Your task to perform on an android device: add a contact Image 0: 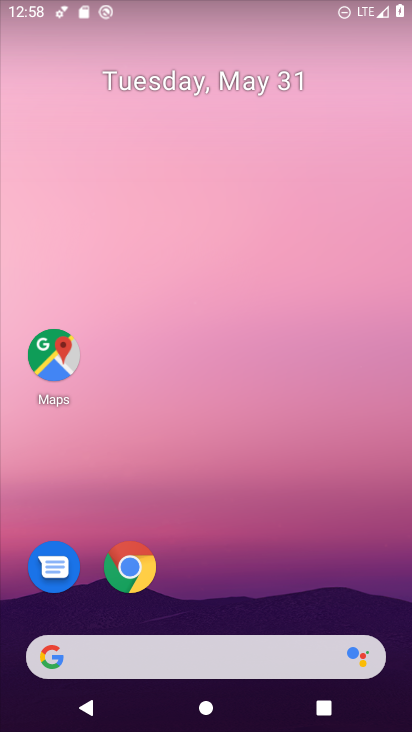
Step 0: drag from (225, 595) to (212, 152)
Your task to perform on an android device: add a contact Image 1: 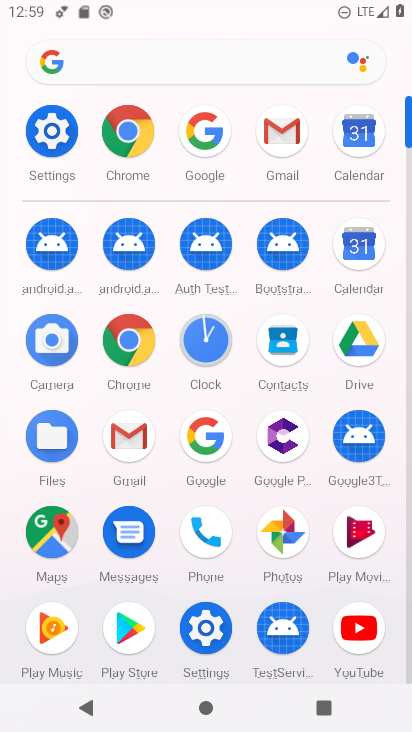
Step 1: click (262, 358)
Your task to perform on an android device: add a contact Image 2: 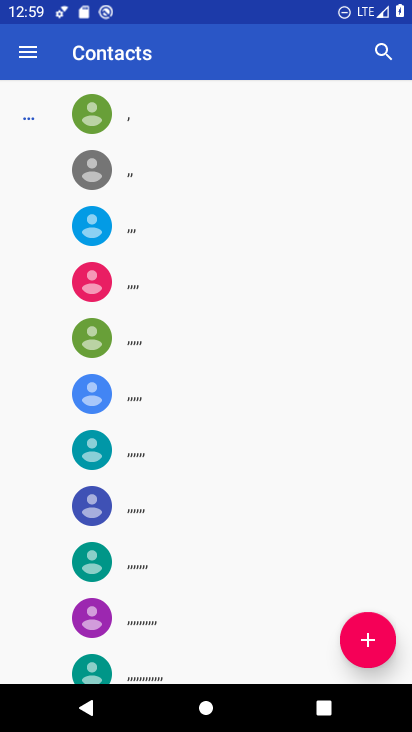
Step 2: click (362, 637)
Your task to perform on an android device: add a contact Image 3: 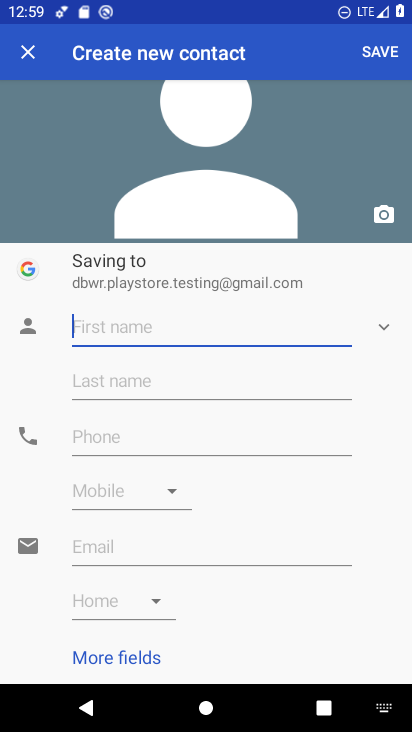
Step 3: type "hfghf"
Your task to perform on an android device: add a contact Image 4: 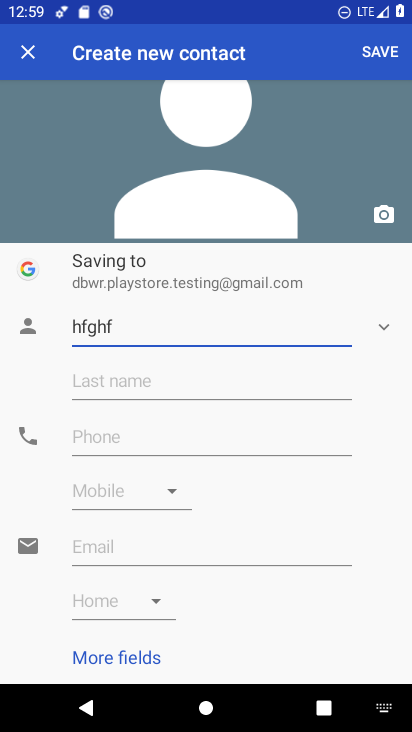
Step 4: click (144, 430)
Your task to perform on an android device: add a contact Image 5: 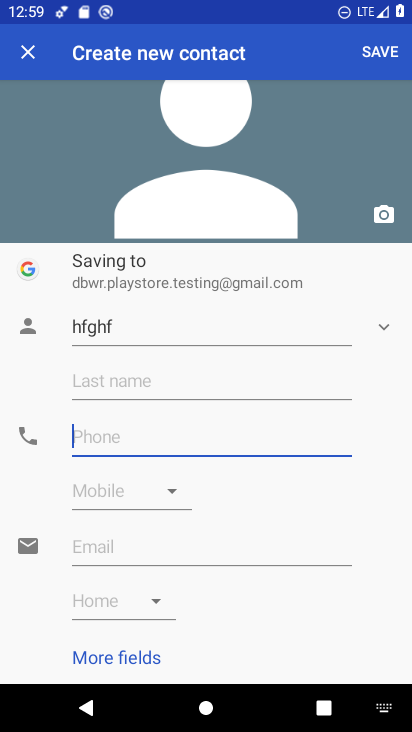
Step 5: type "8755685475464"
Your task to perform on an android device: add a contact Image 6: 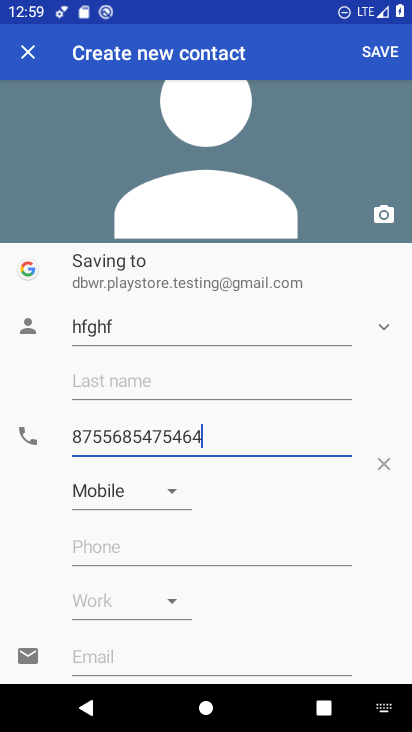
Step 6: click (383, 46)
Your task to perform on an android device: add a contact Image 7: 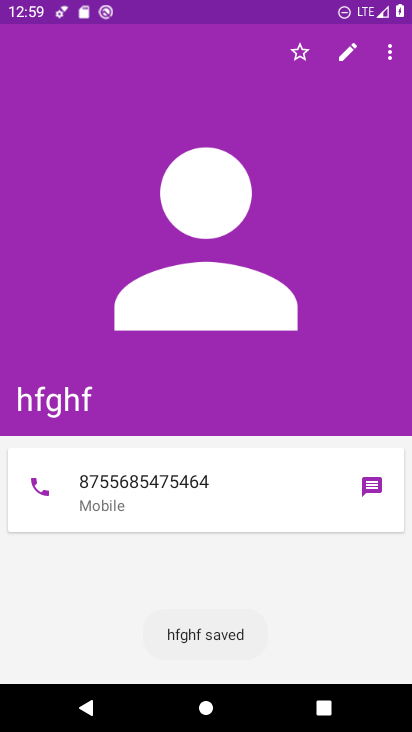
Step 7: task complete